Your task to perform on an android device: set the timer Image 0: 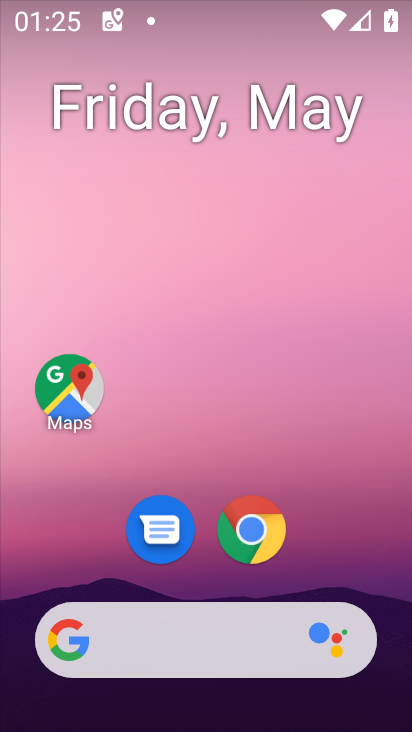
Step 0: drag from (299, 582) to (294, 223)
Your task to perform on an android device: set the timer Image 1: 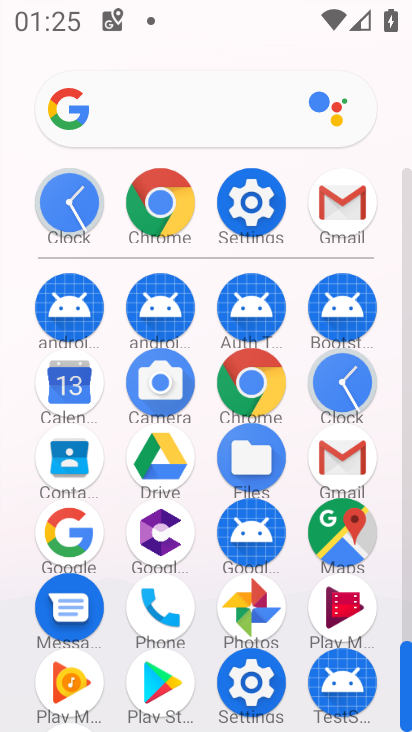
Step 1: click (340, 372)
Your task to perform on an android device: set the timer Image 2: 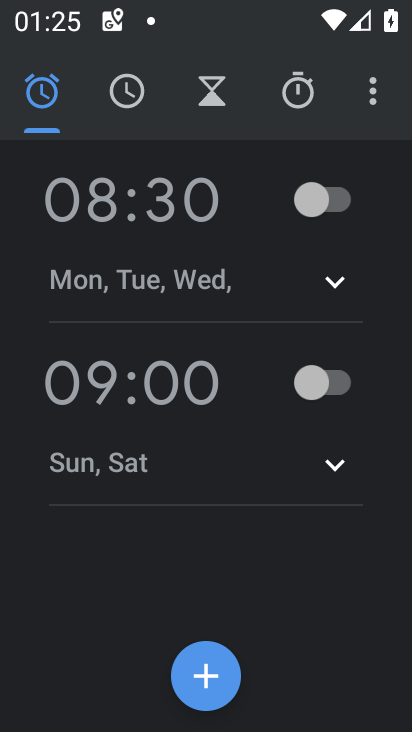
Step 2: click (211, 88)
Your task to perform on an android device: set the timer Image 3: 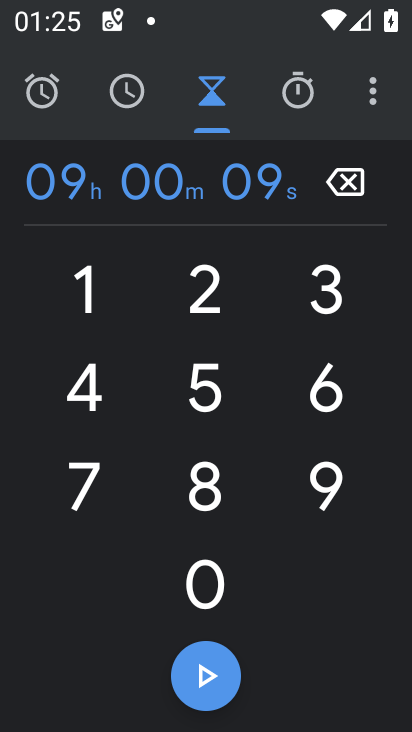
Step 3: click (206, 670)
Your task to perform on an android device: set the timer Image 4: 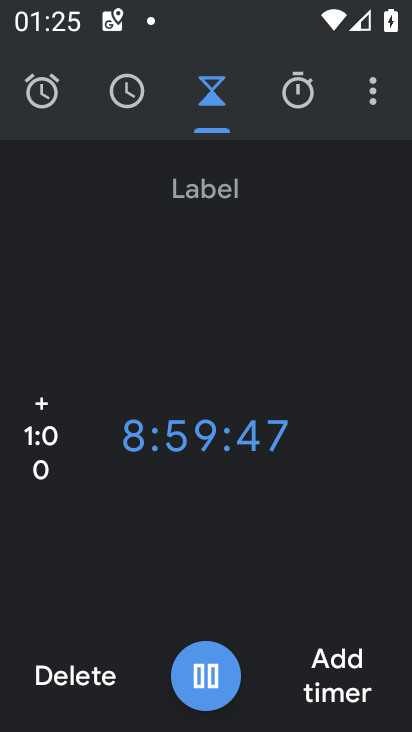
Step 4: task complete